Your task to perform on an android device: empty trash in the gmail app Image 0: 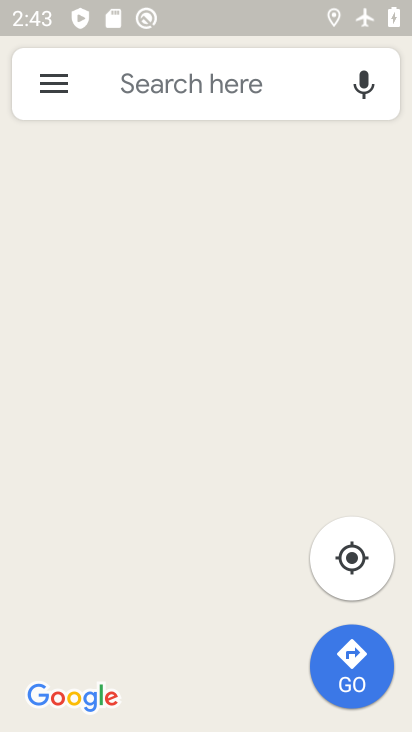
Step 0: press home button
Your task to perform on an android device: empty trash in the gmail app Image 1: 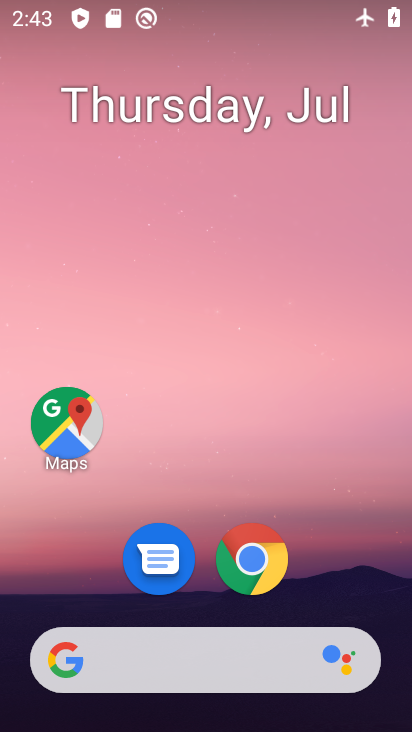
Step 1: drag from (190, 583) to (215, 199)
Your task to perform on an android device: empty trash in the gmail app Image 2: 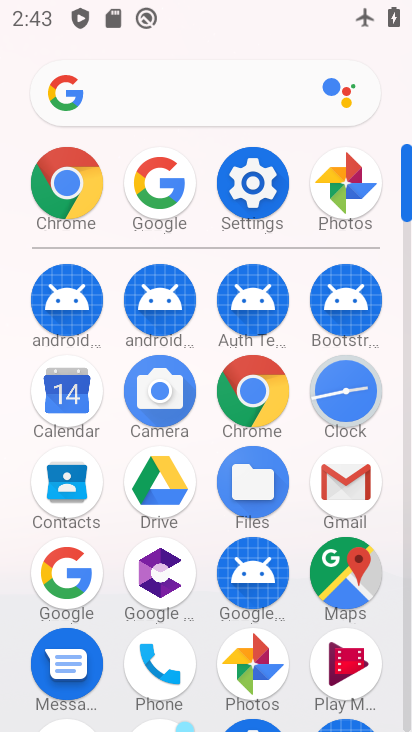
Step 2: click (373, 492)
Your task to perform on an android device: empty trash in the gmail app Image 3: 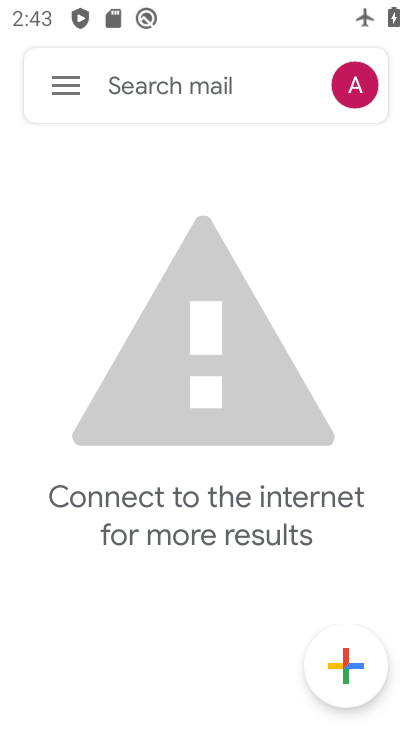
Step 3: press home button
Your task to perform on an android device: empty trash in the gmail app Image 4: 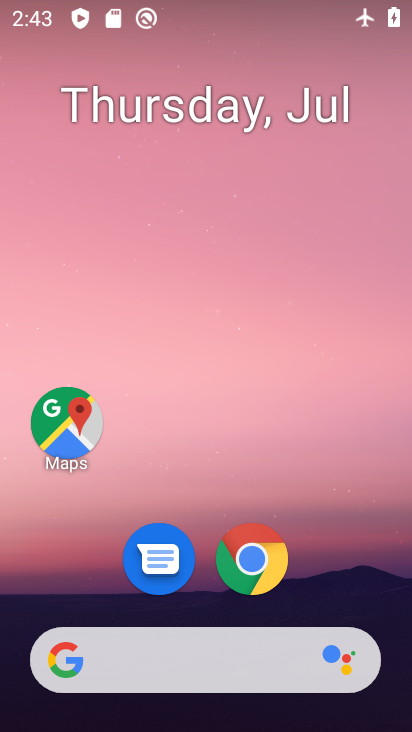
Step 4: drag from (186, 613) to (211, 35)
Your task to perform on an android device: empty trash in the gmail app Image 5: 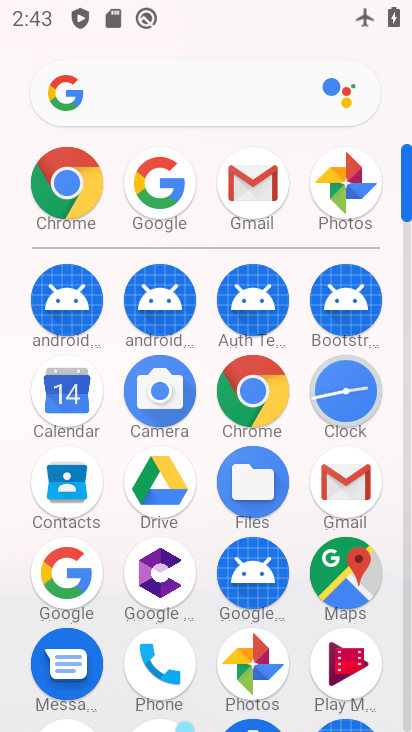
Step 5: click (332, 489)
Your task to perform on an android device: empty trash in the gmail app Image 6: 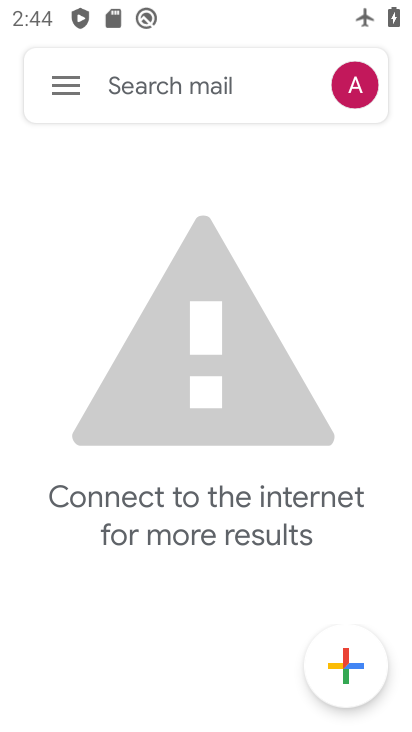
Step 6: click (71, 100)
Your task to perform on an android device: empty trash in the gmail app Image 7: 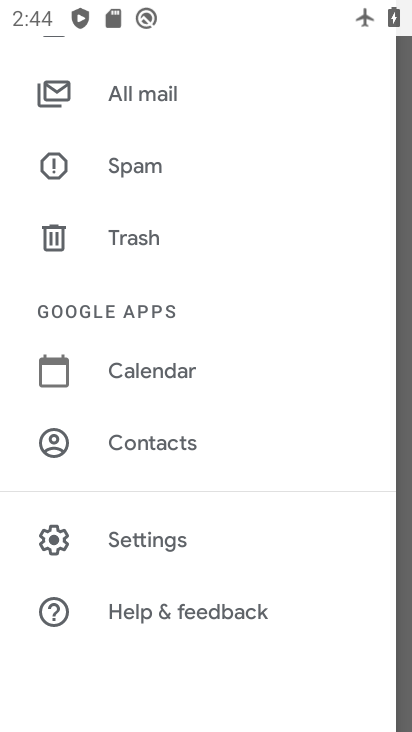
Step 7: click (162, 246)
Your task to perform on an android device: empty trash in the gmail app Image 8: 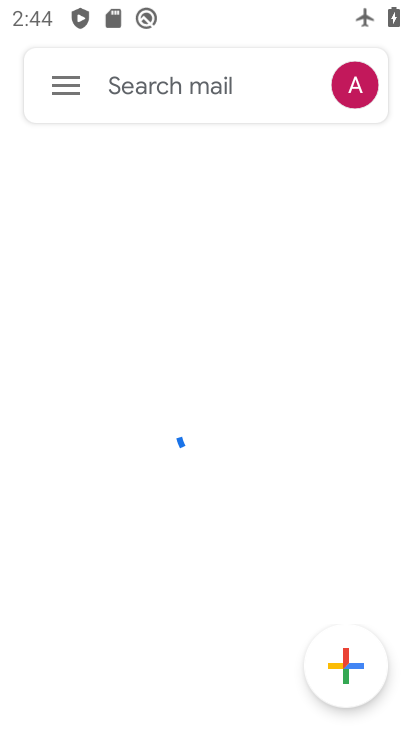
Step 8: task complete